Your task to perform on an android device: Open calendar and show me the third week of next month Image 0: 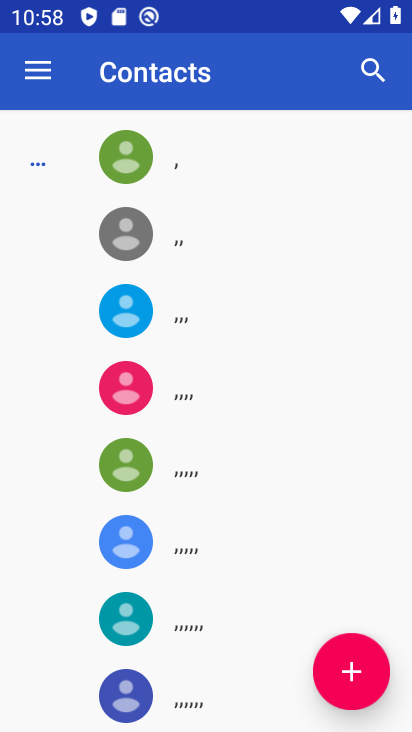
Step 0: task complete